Your task to perform on an android device: turn on javascript in the chrome app Image 0: 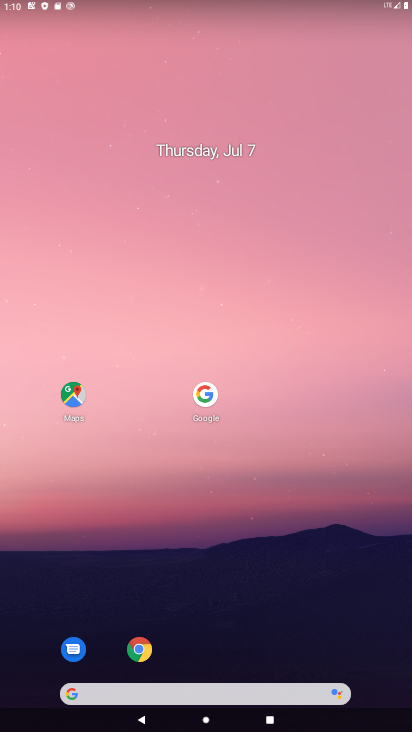
Step 0: press home button
Your task to perform on an android device: turn on javascript in the chrome app Image 1: 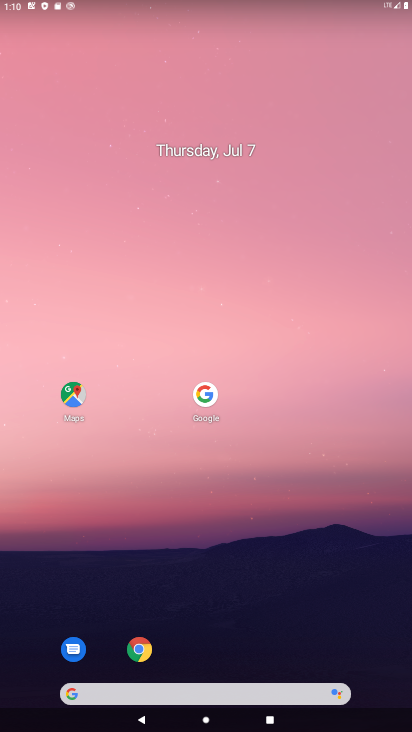
Step 1: drag from (310, 609) to (280, 187)
Your task to perform on an android device: turn on javascript in the chrome app Image 2: 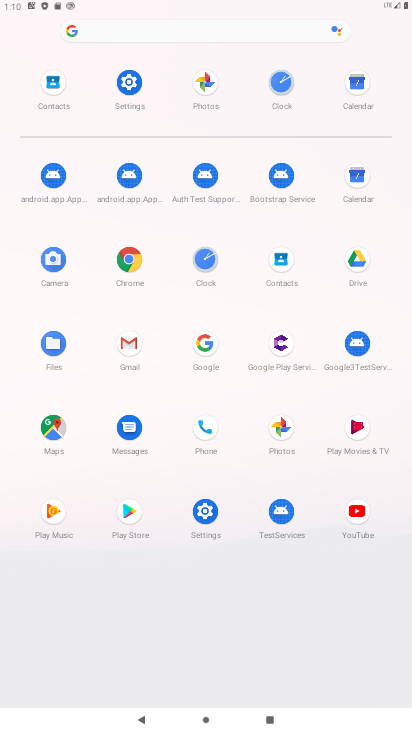
Step 2: click (129, 248)
Your task to perform on an android device: turn on javascript in the chrome app Image 3: 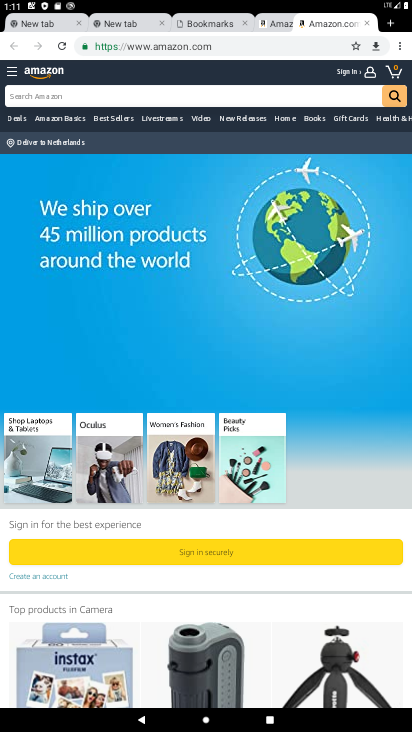
Step 3: press back button
Your task to perform on an android device: turn on javascript in the chrome app Image 4: 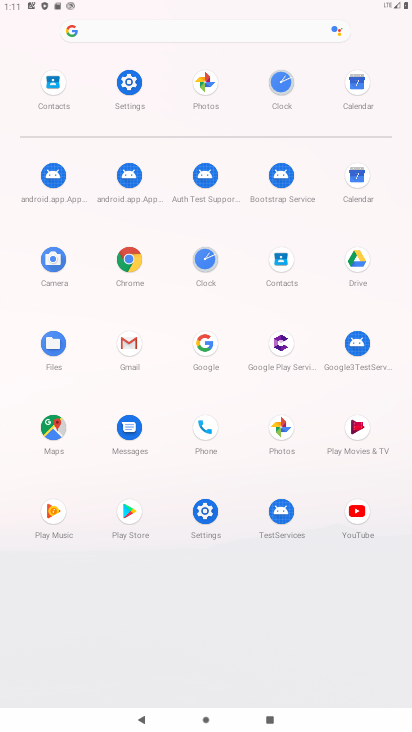
Step 4: click (127, 258)
Your task to perform on an android device: turn on javascript in the chrome app Image 5: 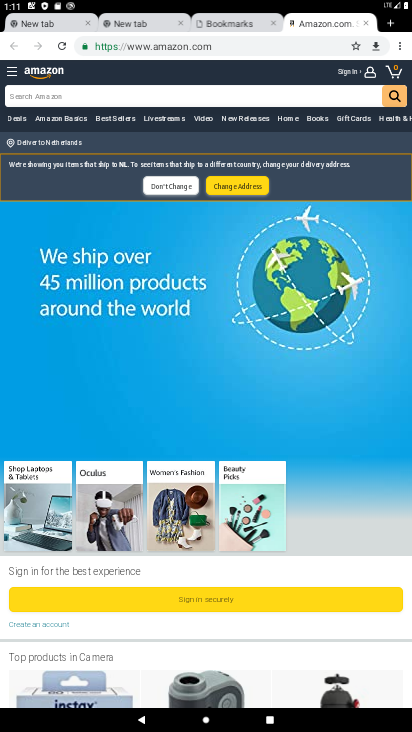
Step 5: click (399, 46)
Your task to perform on an android device: turn on javascript in the chrome app Image 6: 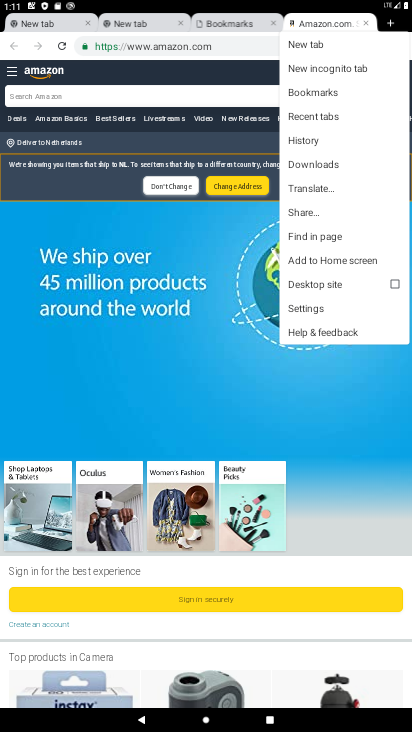
Step 6: click (318, 306)
Your task to perform on an android device: turn on javascript in the chrome app Image 7: 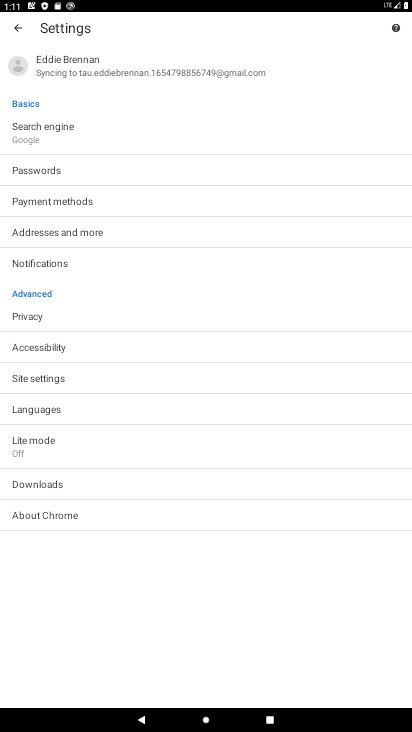
Step 7: click (17, 376)
Your task to perform on an android device: turn on javascript in the chrome app Image 8: 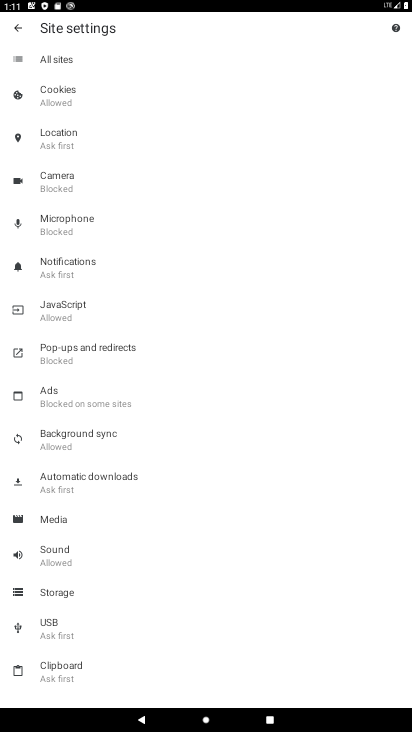
Step 8: click (56, 308)
Your task to perform on an android device: turn on javascript in the chrome app Image 9: 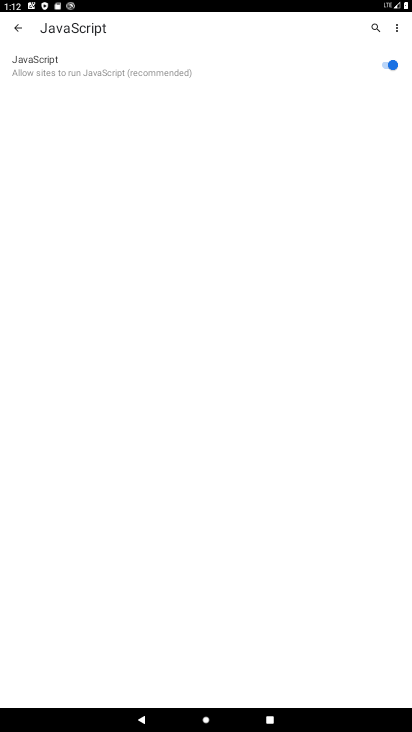
Step 9: task complete